Your task to perform on an android device: Go to Google Image 0: 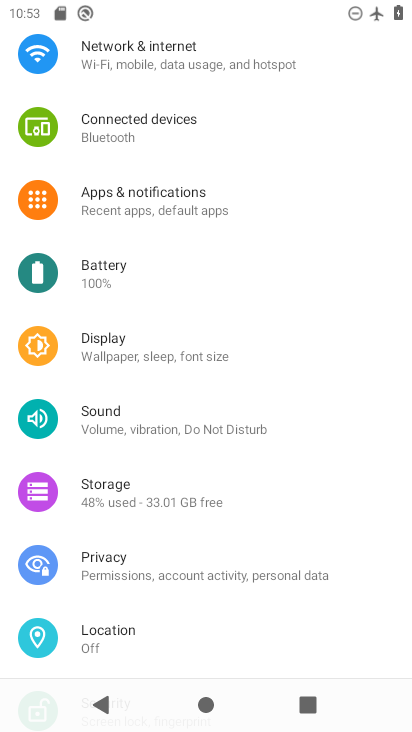
Step 0: drag from (248, 298) to (385, 468)
Your task to perform on an android device: Go to Google Image 1: 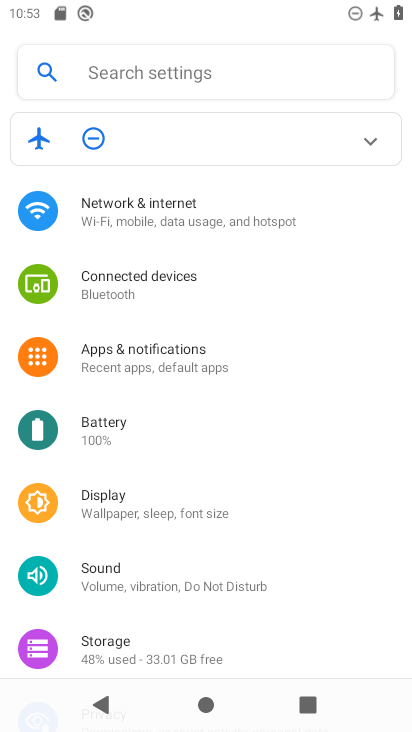
Step 1: press home button
Your task to perform on an android device: Go to Google Image 2: 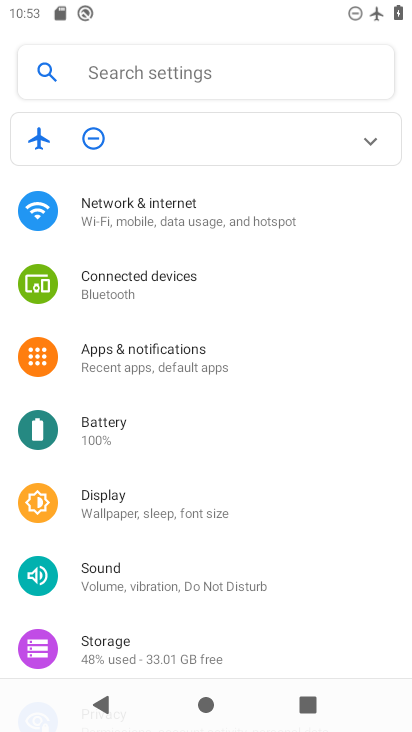
Step 2: click (368, 558)
Your task to perform on an android device: Go to Google Image 3: 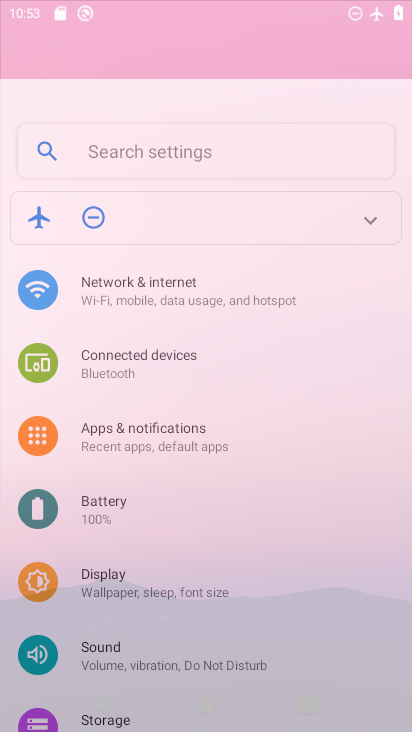
Step 3: drag from (116, 515) to (178, 106)
Your task to perform on an android device: Go to Google Image 4: 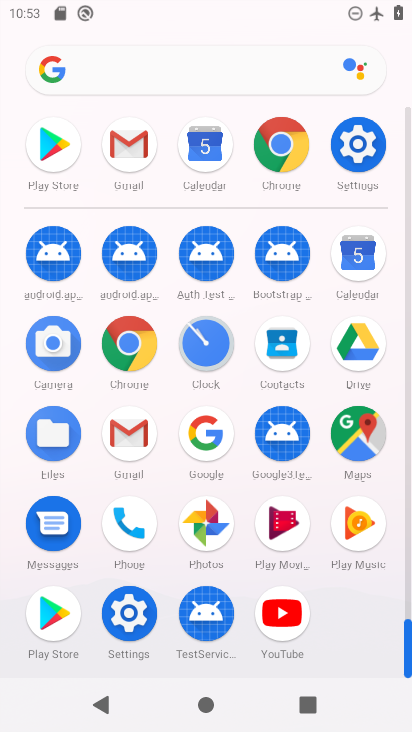
Step 4: click (214, 425)
Your task to perform on an android device: Go to Google Image 5: 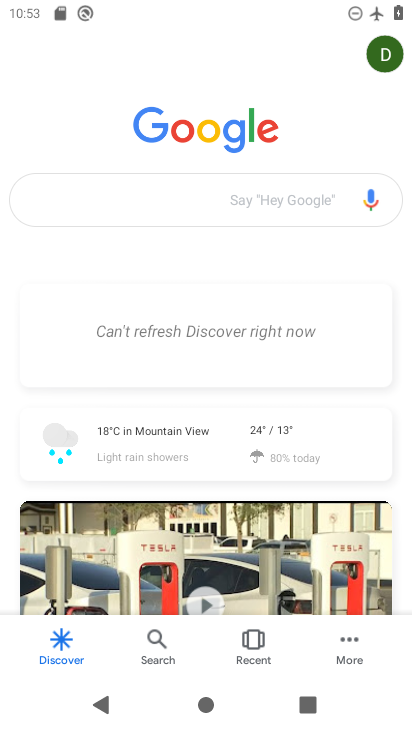
Step 5: task complete